Your task to perform on an android device: What is the news today? Image 0: 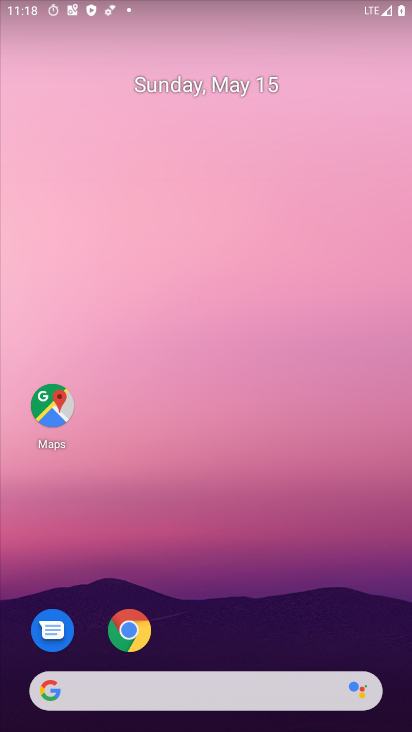
Step 0: click (195, 686)
Your task to perform on an android device: What is the news today? Image 1: 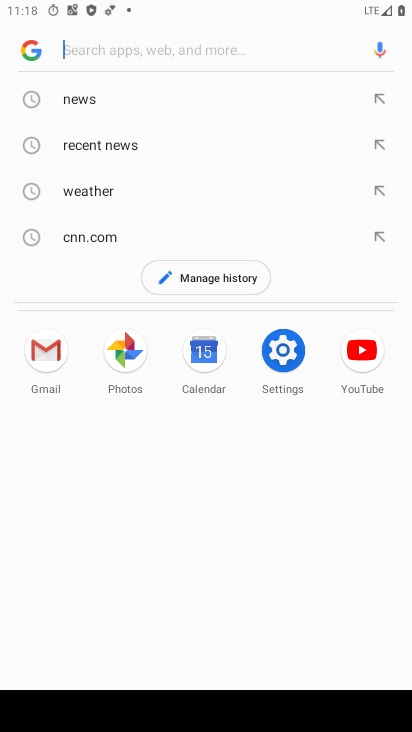
Step 1: click (81, 96)
Your task to perform on an android device: What is the news today? Image 2: 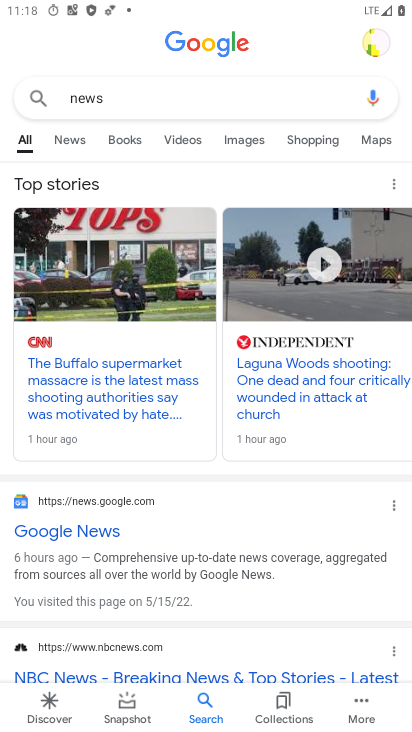
Step 2: click (116, 100)
Your task to perform on an android device: What is the news today? Image 3: 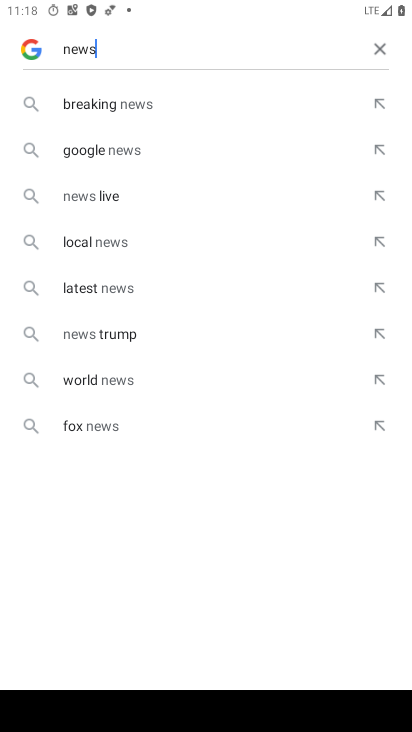
Step 3: task complete